Your task to perform on an android device: Find coffee shops on Maps Image 0: 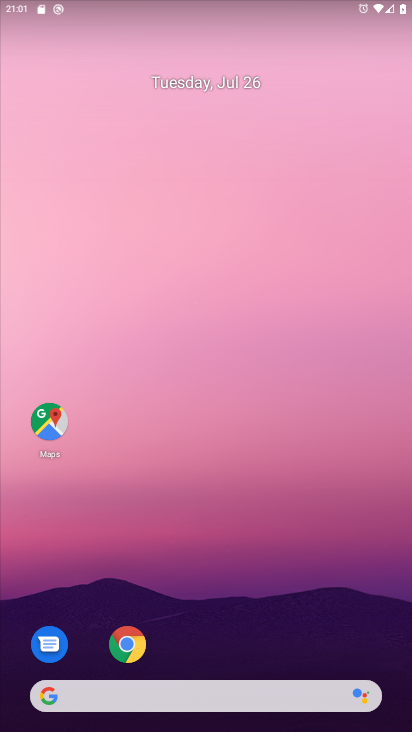
Step 0: click (46, 410)
Your task to perform on an android device: Find coffee shops on Maps Image 1: 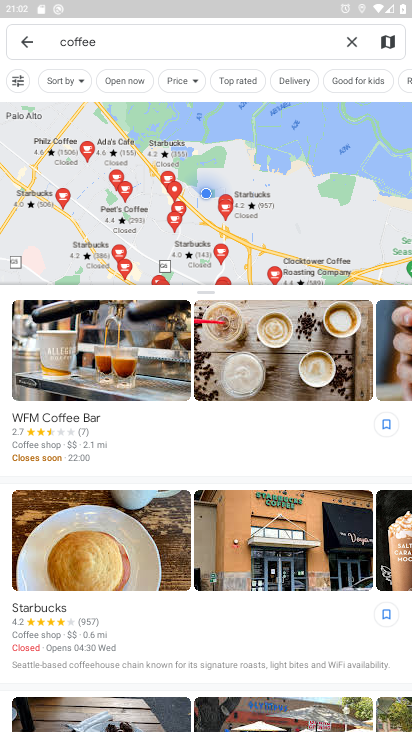
Step 1: task complete